Your task to perform on an android device: turn off notifications settings in the gmail app Image 0: 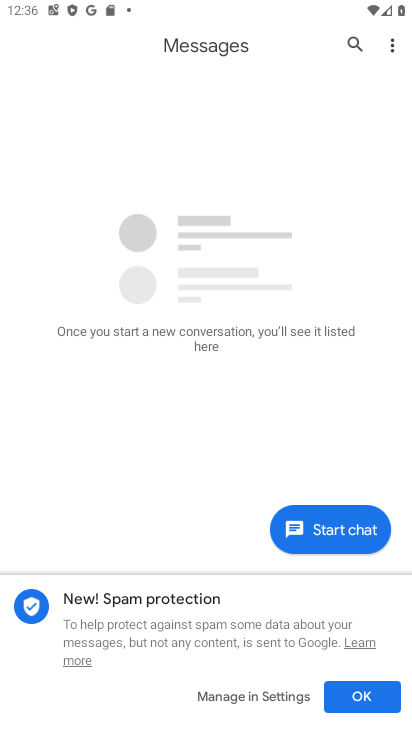
Step 0: press home button
Your task to perform on an android device: turn off notifications settings in the gmail app Image 1: 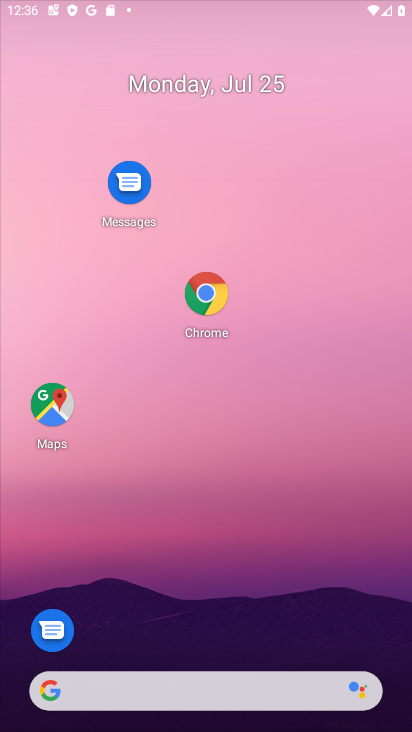
Step 1: click (229, 11)
Your task to perform on an android device: turn off notifications settings in the gmail app Image 2: 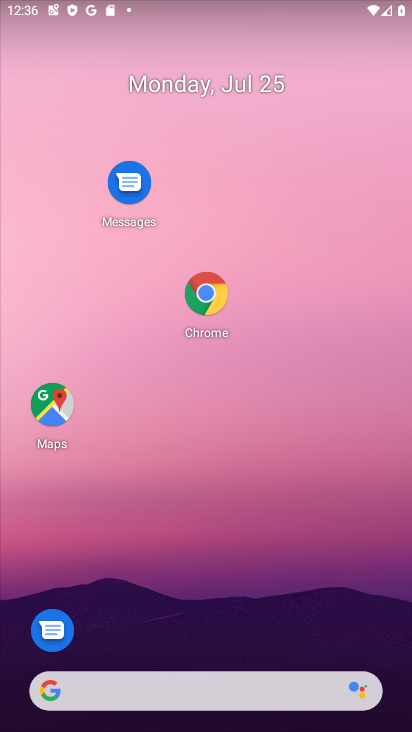
Step 2: drag from (267, 618) to (297, 129)
Your task to perform on an android device: turn off notifications settings in the gmail app Image 3: 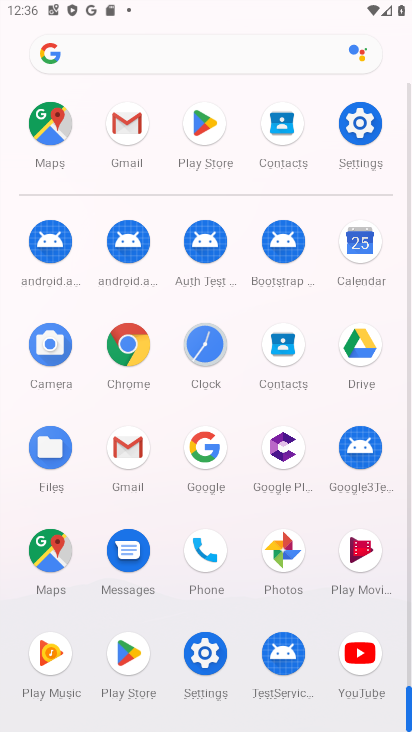
Step 3: click (359, 135)
Your task to perform on an android device: turn off notifications settings in the gmail app Image 4: 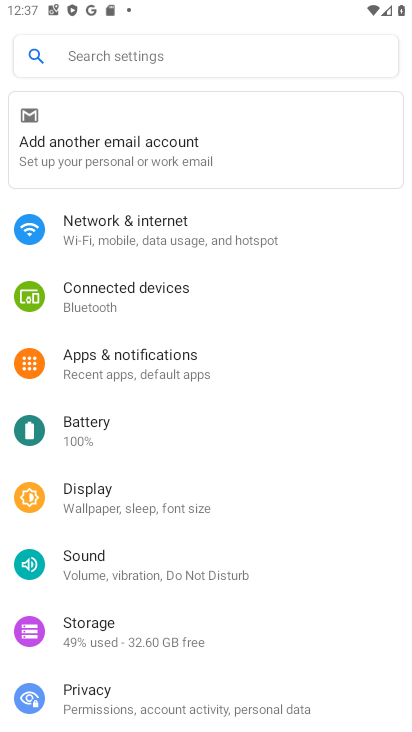
Step 4: click (130, 352)
Your task to perform on an android device: turn off notifications settings in the gmail app Image 5: 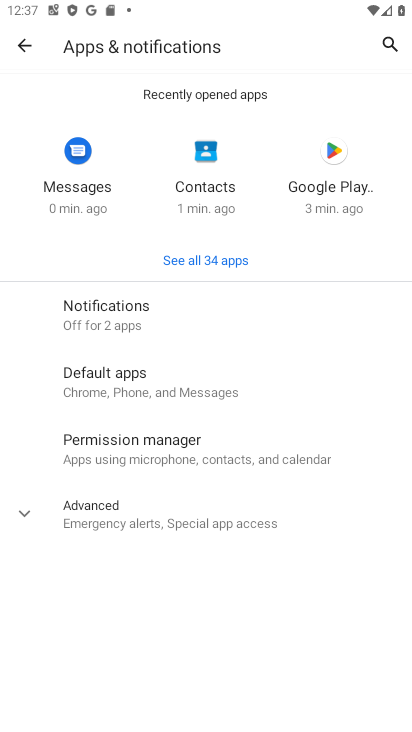
Step 5: click (137, 306)
Your task to perform on an android device: turn off notifications settings in the gmail app Image 6: 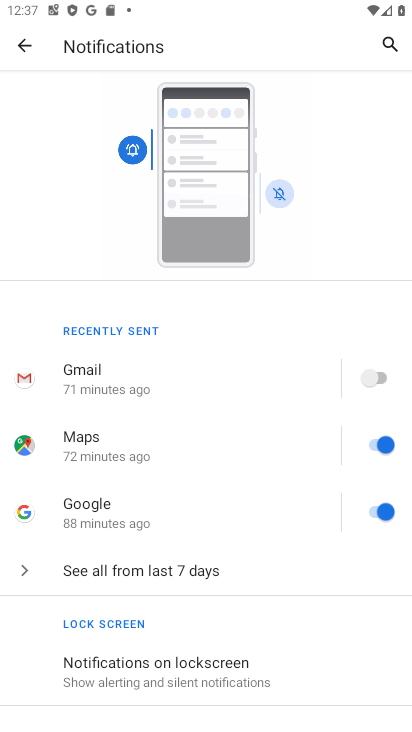
Step 6: click (331, 378)
Your task to perform on an android device: turn off notifications settings in the gmail app Image 7: 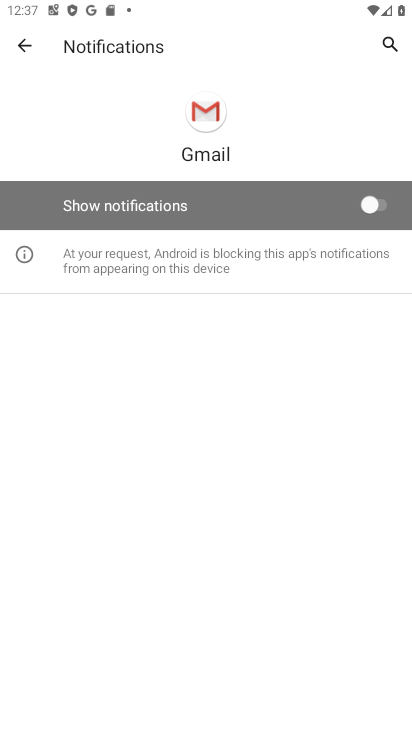
Step 7: click (259, 207)
Your task to perform on an android device: turn off notifications settings in the gmail app Image 8: 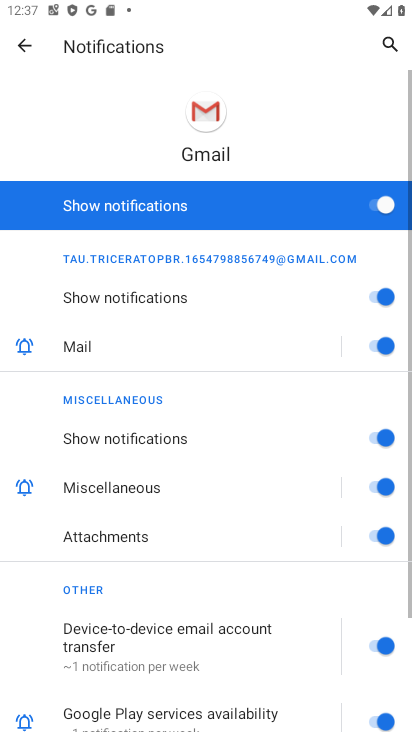
Step 8: task complete